Your task to perform on an android device: Show me popular games on the Play Store Image 0: 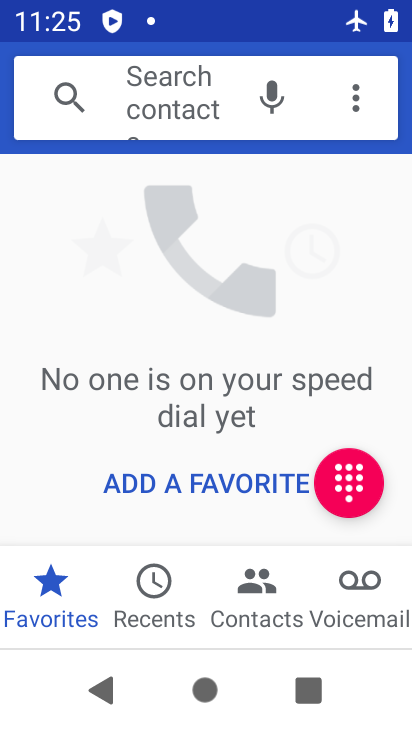
Step 0: press back button
Your task to perform on an android device: Show me popular games on the Play Store Image 1: 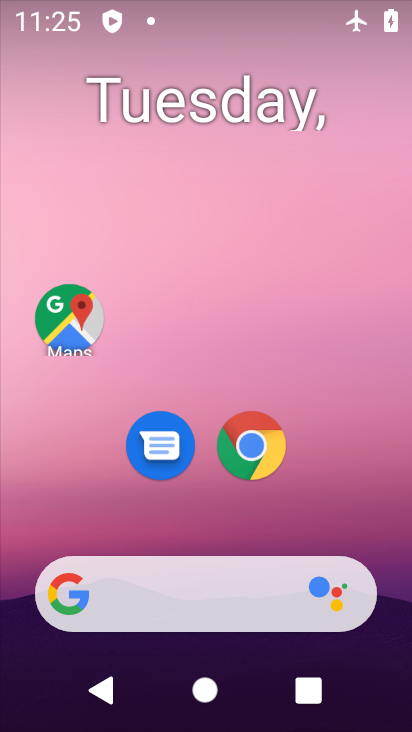
Step 1: drag from (337, 494) to (148, 4)
Your task to perform on an android device: Show me popular games on the Play Store Image 2: 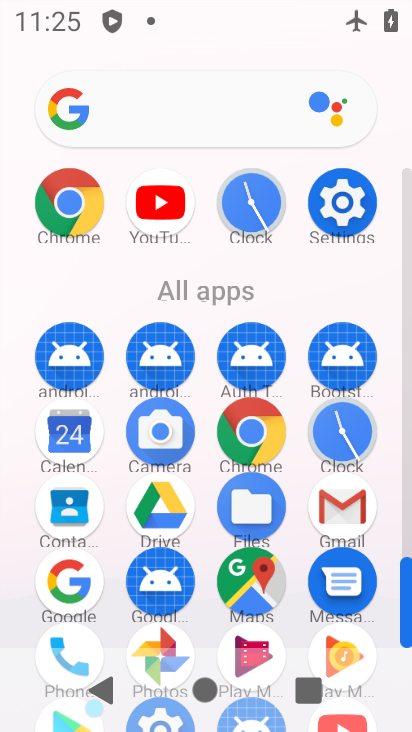
Step 2: drag from (11, 629) to (7, 258)
Your task to perform on an android device: Show me popular games on the Play Store Image 3: 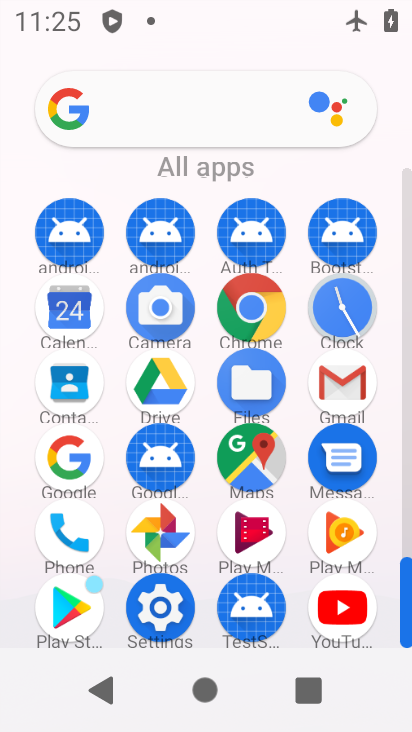
Step 3: click (62, 607)
Your task to perform on an android device: Show me popular games on the Play Store Image 4: 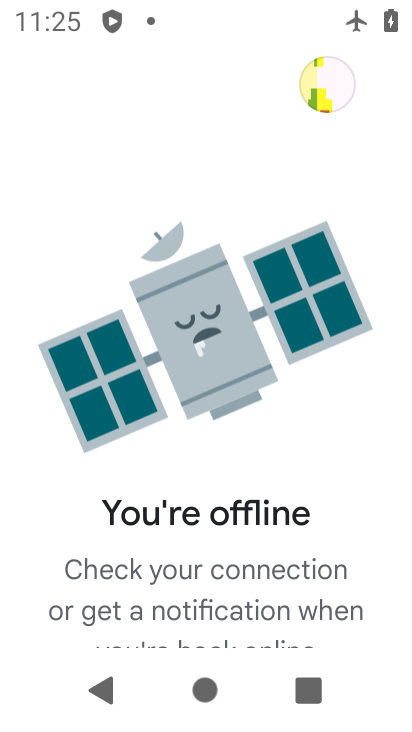
Step 4: task complete